Your task to perform on an android device: star an email in the gmail app Image 0: 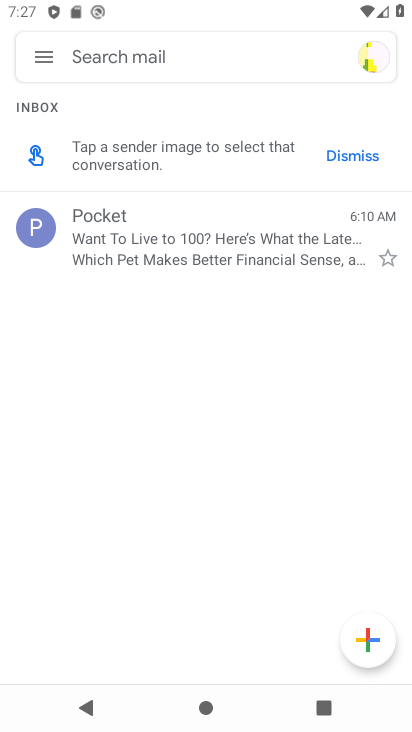
Step 0: click (376, 252)
Your task to perform on an android device: star an email in the gmail app Image 1: 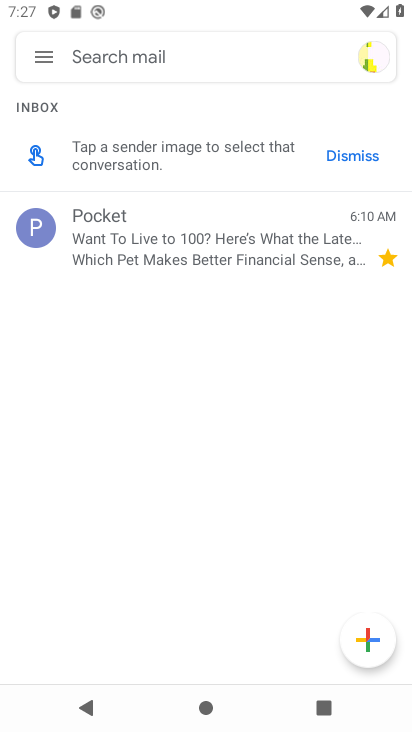
Step 1: task complete